Your task to perform on an android device: Add "razer huntsman" to the cart on walmart.com Image 0: 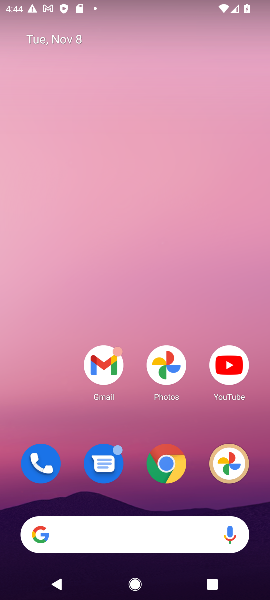
Step 0: click (181, 464)
Your task to perform on an android device: Add "razer huntsman" to the cart on walmart.com Image 1: 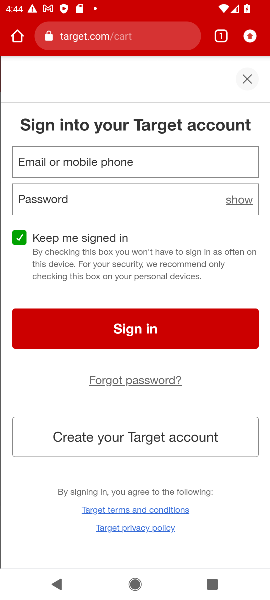
Step 1: click (119, 41)
Your task to perform on an android device: Add "razer huntsman" to the cart on walmart.com Image 2: 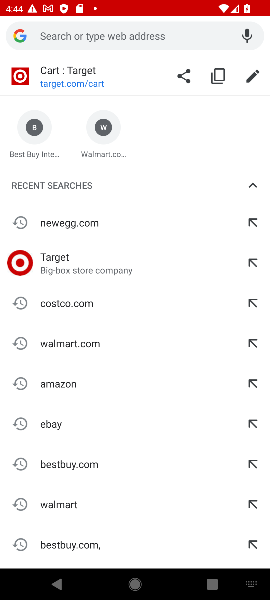
Step 2: click (69, 348)
Your task to perform on an android device: Add "razer huntsman" to the cart on walmart.com Image 3: 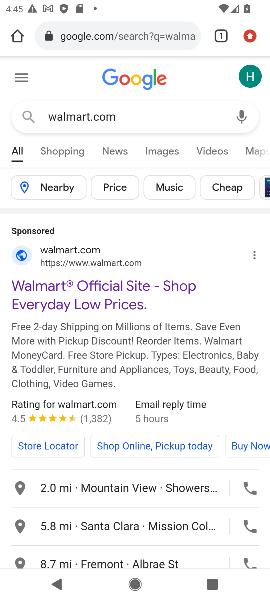
Step 3: click (62, 299)
Your task to perform on an android device: Add "razer huntsman" to the cart on walmart.com Image 4: 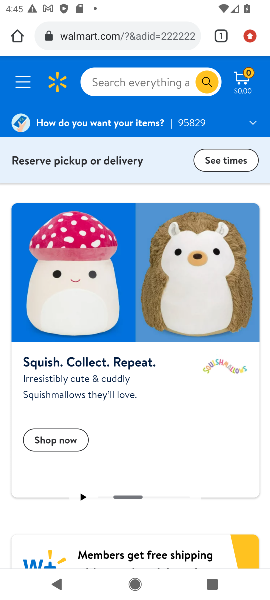
Step 4: click (249, 85)
Your task to perform on an android device: Add "razer huntsman" to the cart on walmart.com Image 5: 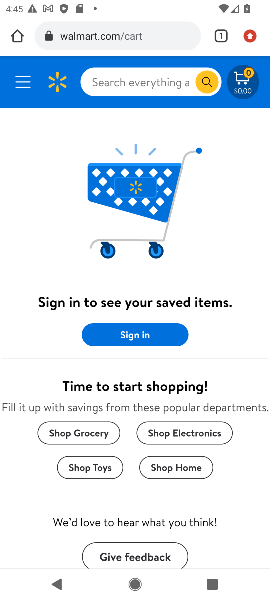
Step 5: click (95, 86)
Your task to perform on an android device: Add "razer huntsman" to the cart on walmart.com Image 6: 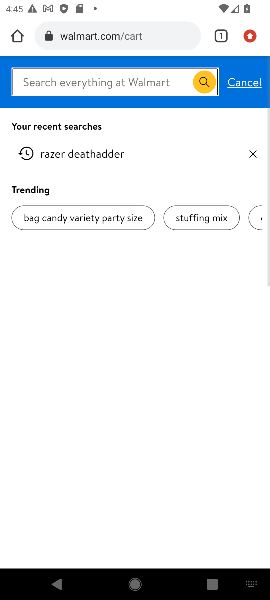
Step 6: click (95, 86)
Your task to perform on an android device: Add "razer huntsman" to the cart on walmart.com Image 7: 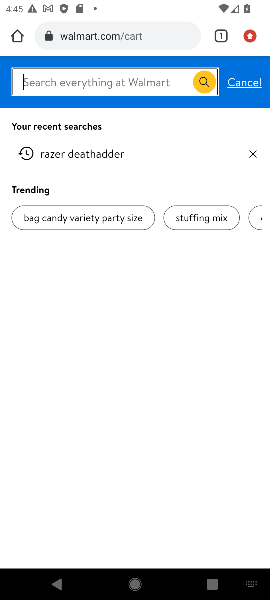
Step 7: type "razer huntsman"
Your task to perform on an android device: Add "razer huntsman" to the cart on walmart.com Image 8: 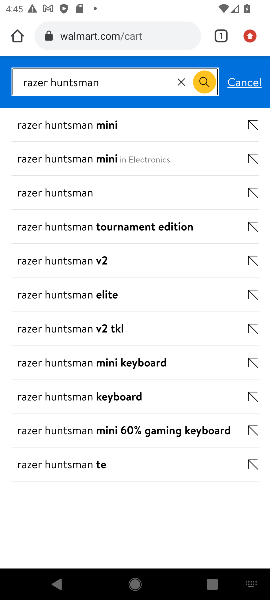
Step 8: click (177, 199)
Your task to perform on an android device: Add "razer huntsman" to the cart on walmart.com Image 9: 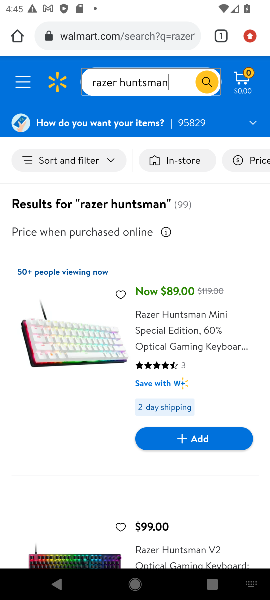
Step 9: click (173, 441)
Your task to perform on an android device: Add "razer huntsman" to the cart on walmart.com Image 10: 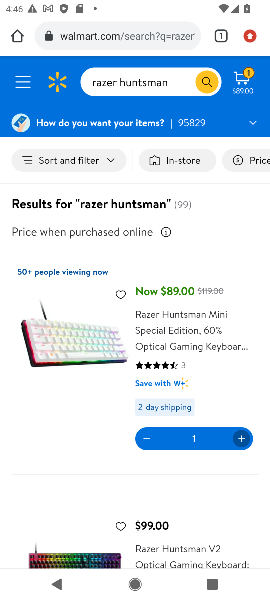
Step 10: task complete